Your task to perform on an android device: turn off sleep mode Image 0: 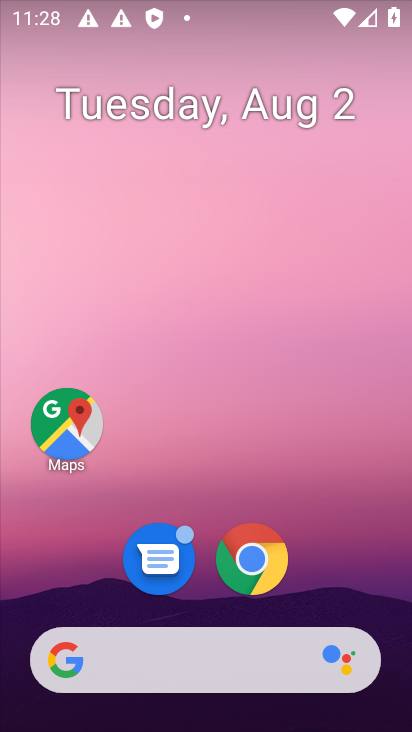
Step 0: drag from (203, 376) to (202, 59)
Your task to perform on an android device: turn off sleep mode Image 1: 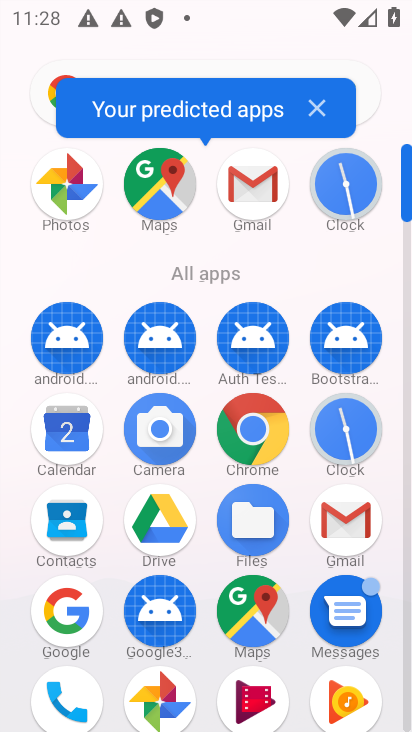
Step 1: drag from (199, 564) to (185, 195)
Your task to perform on an android device: turn off sleep mode Image 2: 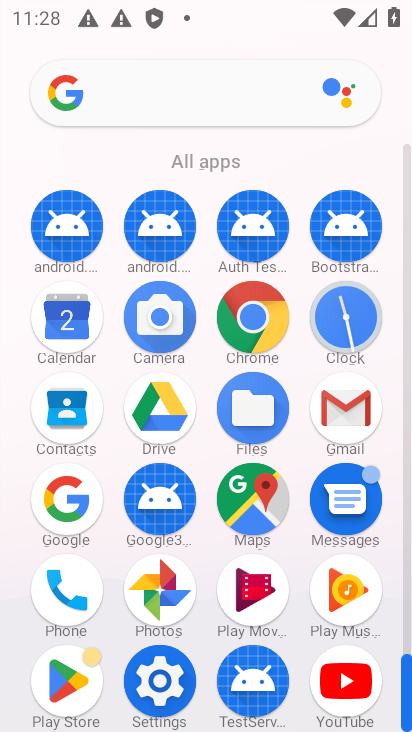
Step 2: click (157, 682)
Your task to perform on an android device: turn off sleep mode Image 3: 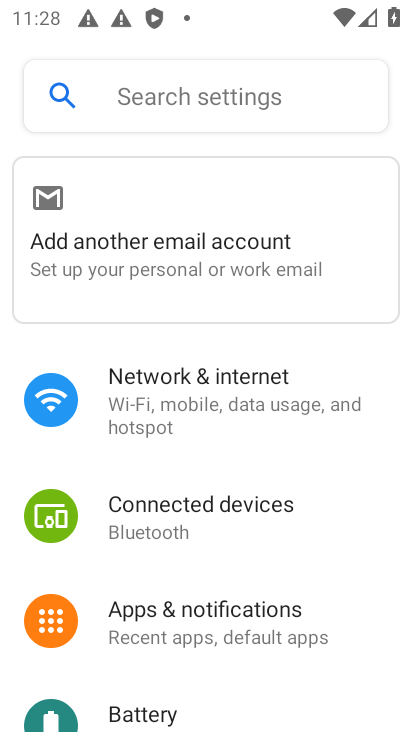
Step 3: drag from (196, 698) to (207, 383)
Your task to perform on an android device: turn off sleep mode Image 4: 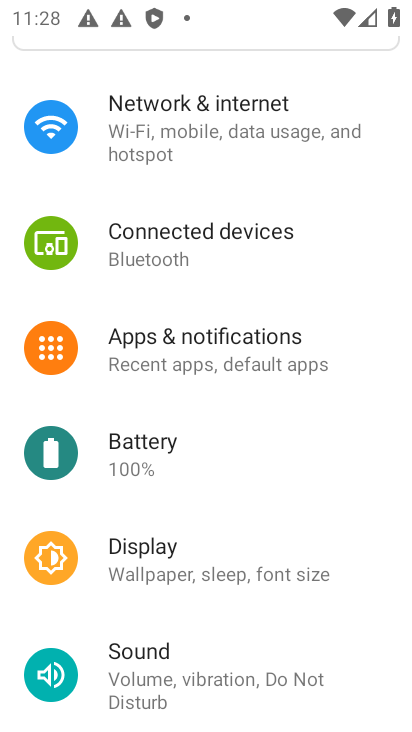
Step 4: click (215, 570)
Your task to perform on an android device: turn off sleep mode Image 5: 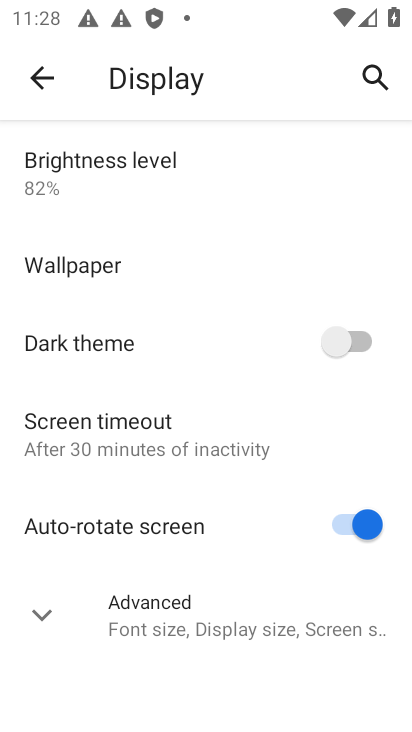
Step 5: task complete